Your task to perform on an android device: Empty the shopping cart on newegg. Add logitech g502 to the cart on newegg, then select checkout. Image 0: 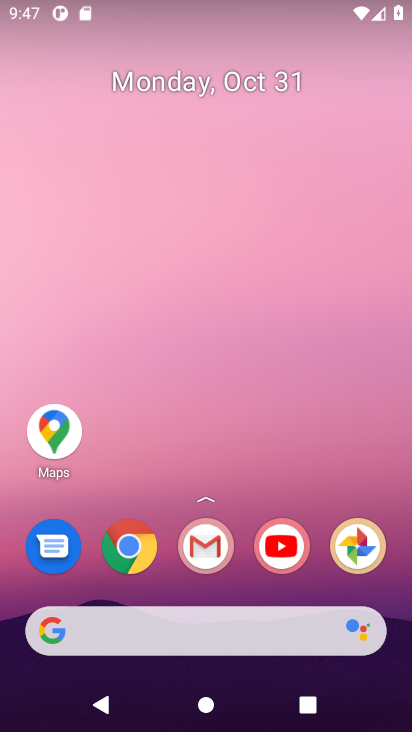
Step 0: click (143, 554)
Your task to perform on an android device: Empty the shopping cart on newegg. Add logitech g502 to the cart on newegg, then select checkout. Image 1: 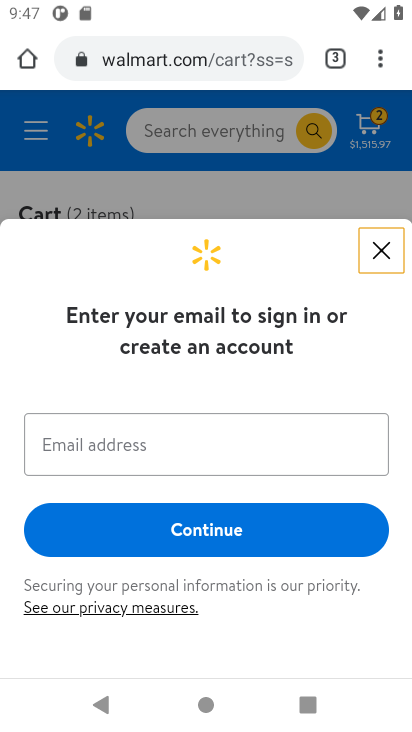
Step 1: click (397, 258)
Your task to perform on an android device: Empty the shopping cart on newegg. Add logitech g502 to the cart on newegg, then select checkout. Image 2: 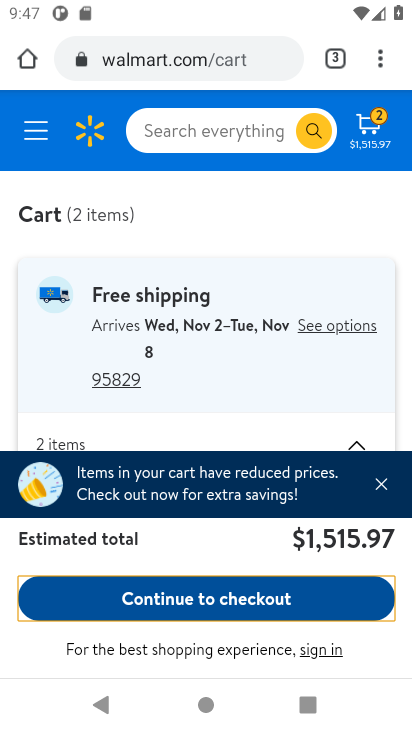
Step 2: click (209, 61)
Your task to perform on an android device: Empty the shopping cart on newegg. Add logitech g502 to the cart on newegg, then select checkout. Image 3: 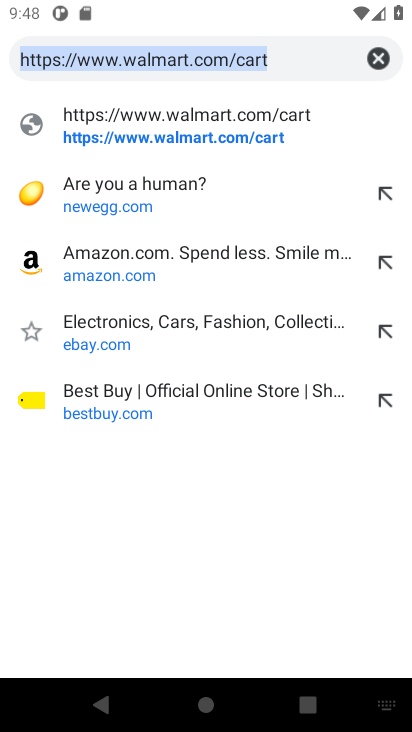
Step 3: click (376, 55)
Your task to perform on an android device: Empty the shopping cart on newegg. Add logitech g502 to the cart on newegg, then select checkout. Image 4: 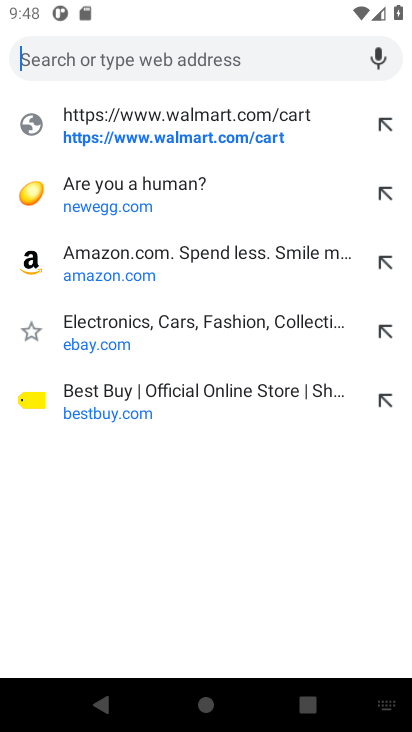
Step 4: type "newegg"
Your task to perform on an android device: Empty the shopping cart on newegg. Add logitech g502 to the cart on newegg, then select checkout. Image 5: 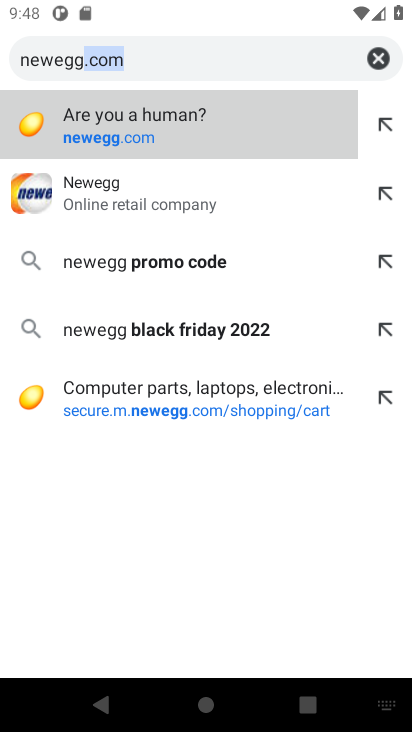
Step 5: press enter
Your task to perform on an android device: Empty the shopping cart on newegg. Add logitech g502 to the cart on newegg, then select checkout. Image 6: 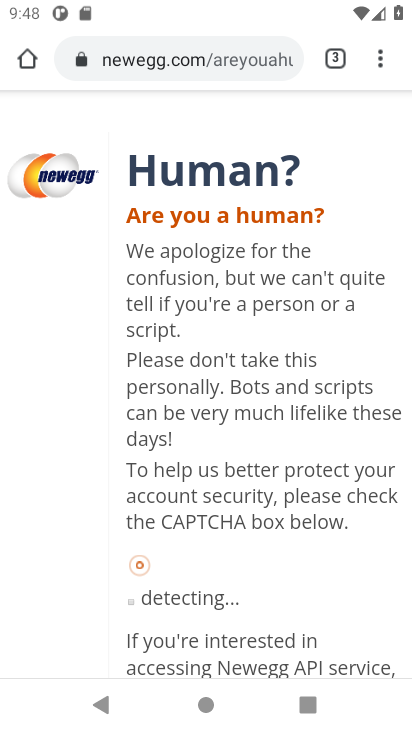
Step 6: click (227, 58)
Your task to perform on an android device: Empty the shopping cart on newegg. Add logitech g502 to the cart on newegg, then select checkout. Image 7: 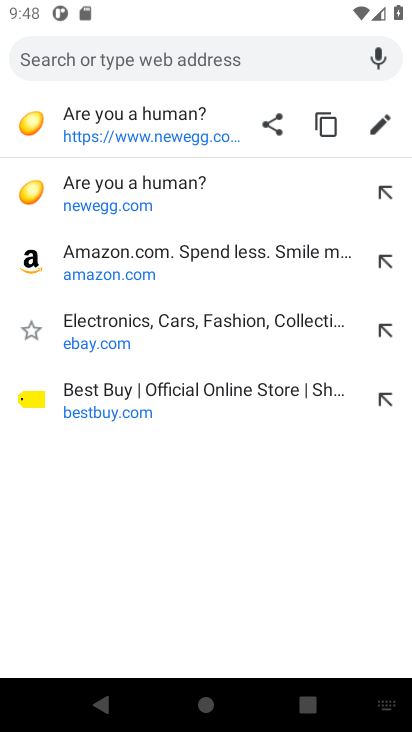
Step 7: type "newegg"
Your task to perform on an android device: Empty the shopping cart on newegg. Add logitech g502 to the cart on newegg, then select checkout. Image 8: 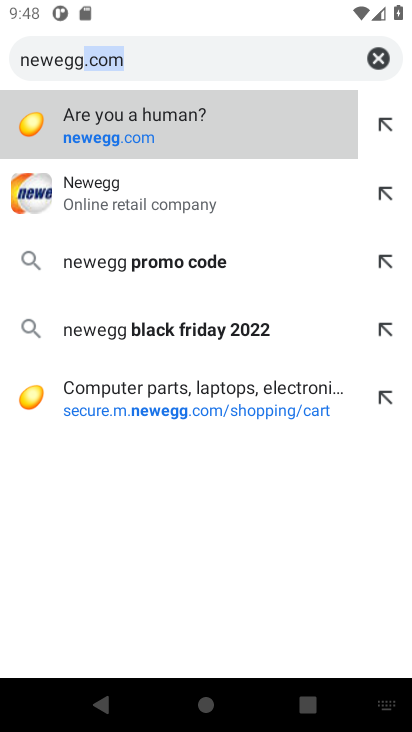
Step 8: press enter
Your task to perform on an android device: Empty the shopping cart on newegg. Add logitech g502 to the cart on newegg, then select checkout. Image 9: 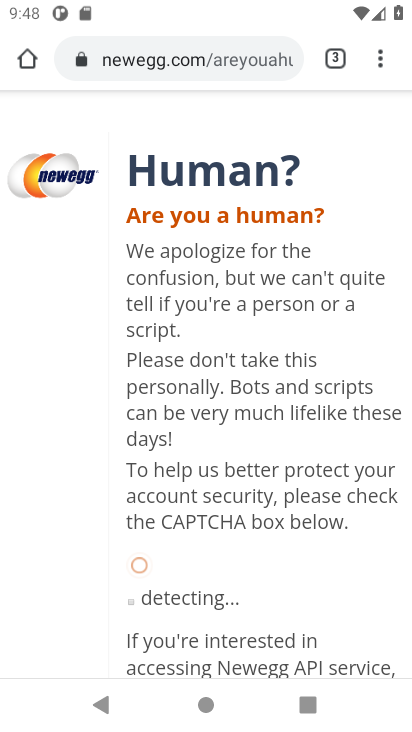
Step 9: click (232, 62)
Your task to perform on an android device: Empty the shopping cart on newegg. Add logitech g502 to the cart on newegg, then select checkout. Image 10: 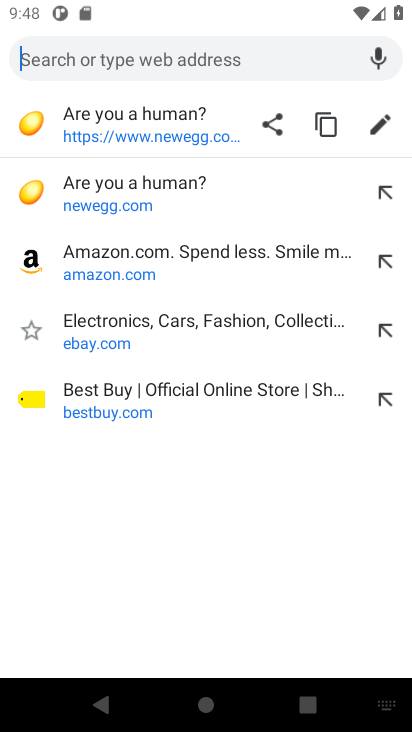
Step 10: type "newegg"
Your task to perform on an android device: Empty the shopping cart on newegg. Add logitech g502 to the cart on newegg, then select checkout. Image 11: 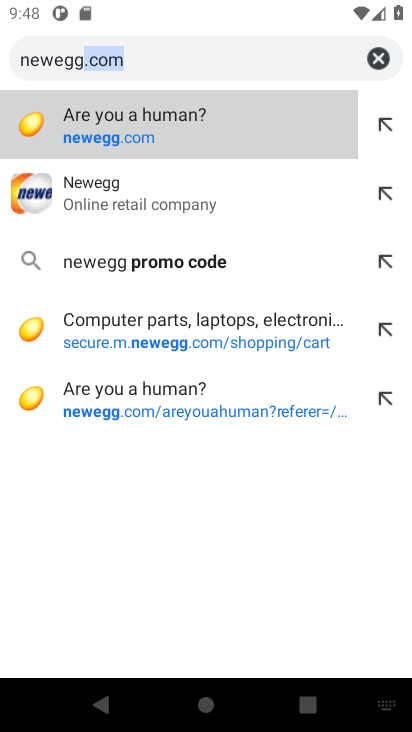
Step 11: press enter
Your task to perform on an android device: Empty the shopping cart on newegg. Add logitech g502 to the cart on newegg, then select checkout. Image 12: 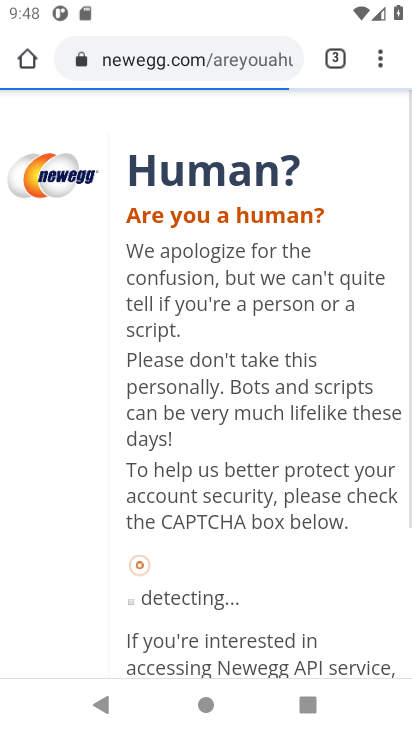
Step 12: click (132, 196)
Your task to perform on an android device: Empty the shopping cart on newegg. Add logitech g502 to the cart on newegg, then select checkout. Image 13: 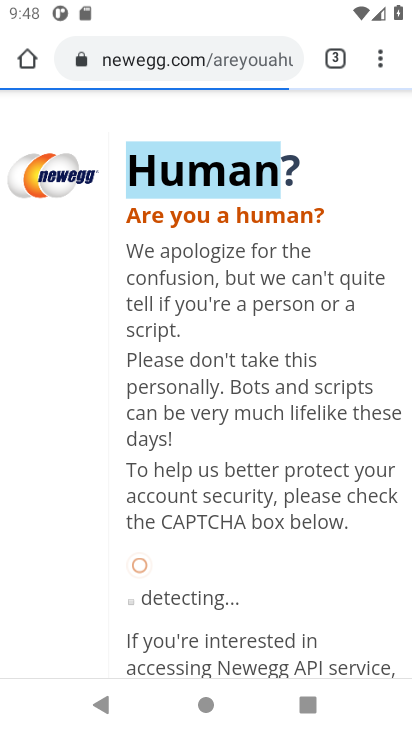
Step 13: click (25, 65)
Your task to perform on an android device: Empty the shopping cart on newegg. Add logitech g502 to the cart on newegg, then select checkout. Image 14: 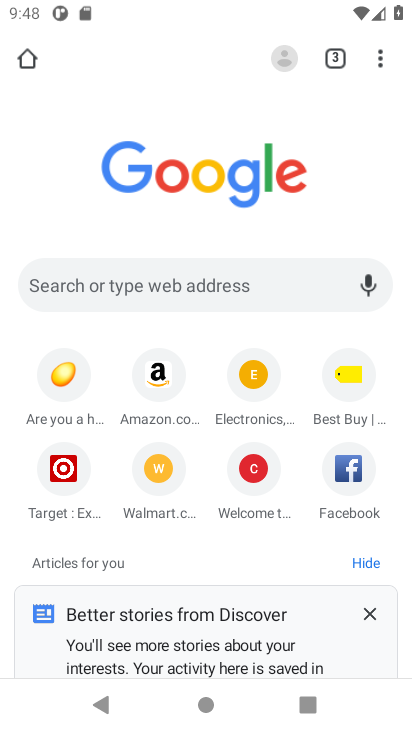
Step 14: click (272, 294)
Your task to perform on an android device: Empty the shopping cart on newegg. Add logitech g502 to the cart on newegg, then select checkout. Image 15: 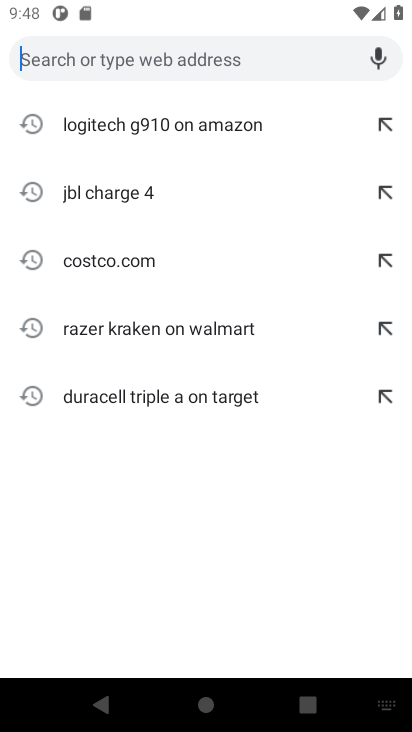
Step 15: type "newegg"
Your task to perform on an android device: Empty the shopping cart on newegg. Add logitech g502 to the cart on newegg, then select checkout. Image 16: 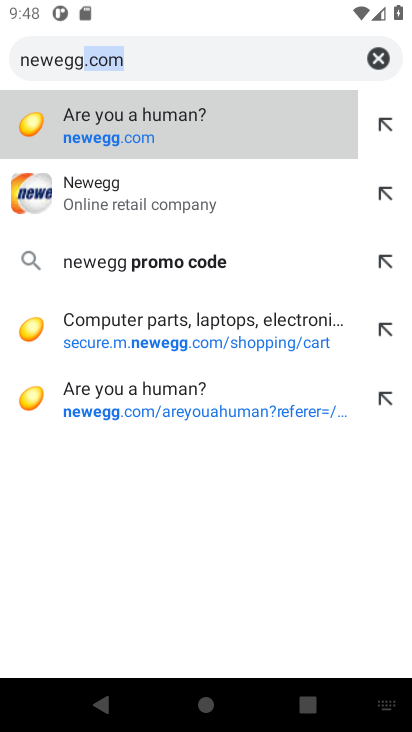
Step 16: press enter
Your task to perform on an android device: Empty the shopping cart on newegg. Add logitech g502 to the cart on newegg, then select checkout. Image 17: 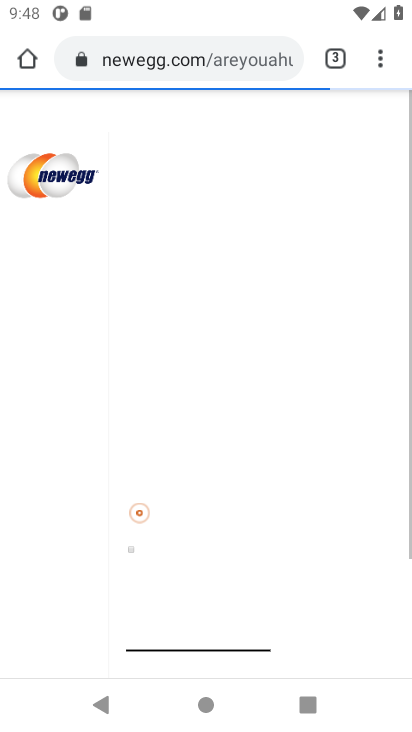
Step 17: click (194, 173)
Your task to perform on an android device: Empty the shopping cart on newegg. Add logitech g502 to the cart on newegg, then select checkout. Image 18: 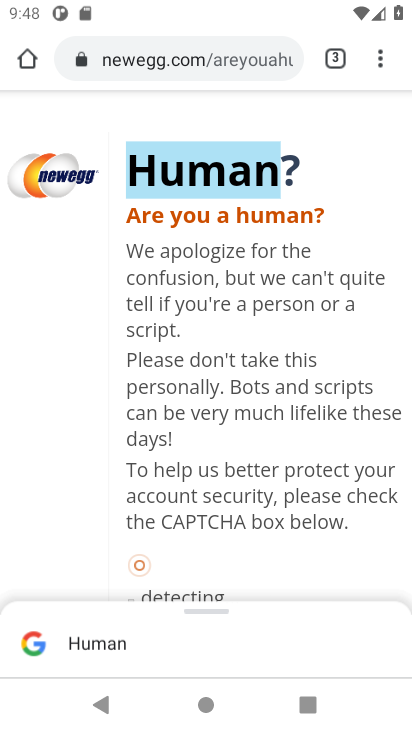
Step 18: drag from (294, 409) to (291, 335)
Your task to perform on an android device: Empty the shopping cart on newegg. Add logitech g502 to the cart on newegg, then select checkout. Image 19: 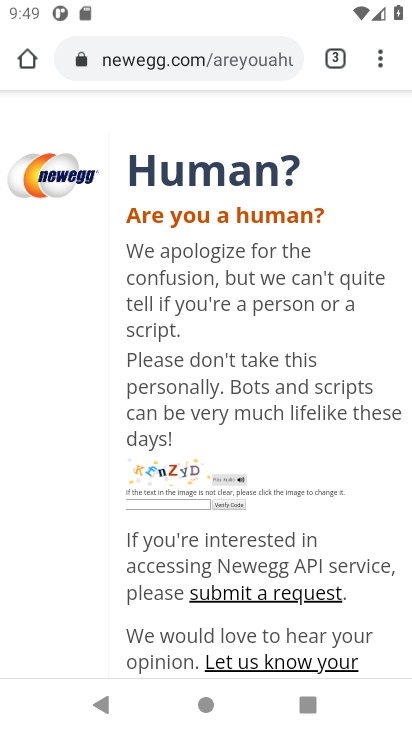
Step 19: click (147, 506)
Your task to perform on an android device: Empty the shopping cart on newegg. Add logitech g502 to the cart on newegg, then select checkout. Image 20: 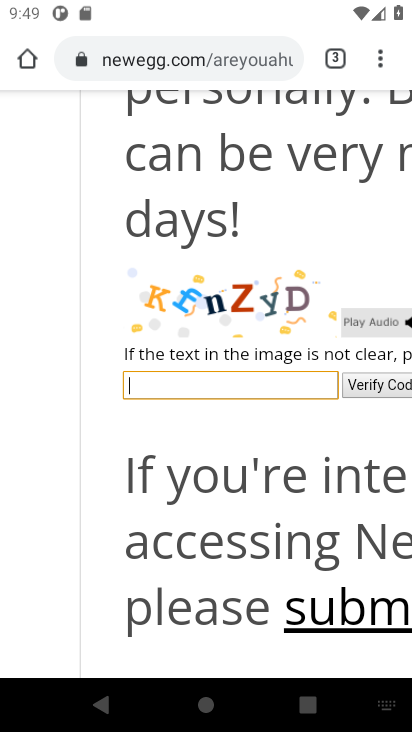
Step 20: type "KfnZyD"
Your task to perform on an android device: Empty the shopping cart on newegg. Add logitech g502 to the cart on newegg, then select checkout. Image 21: 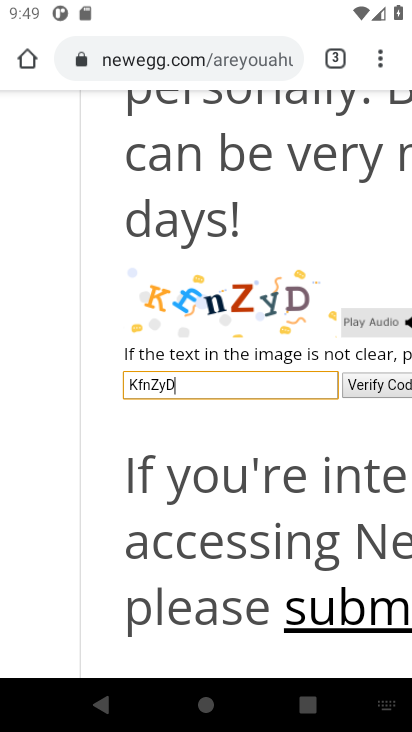
Step 21: press enter
Your task to perform on an android device: Empty the shopping cart on newegg. Add logitech g502 to the cart on newegg, then select checkout. Image 22: 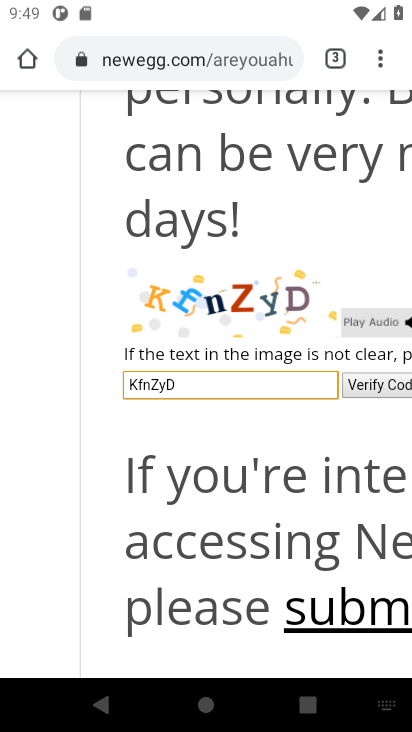
Step 22: click (365, 391)
Your task to perform on an android device: Empty the shopping cart on newegg. Add logitech g502 to the cart on newegg, then select checkout. Image 23: 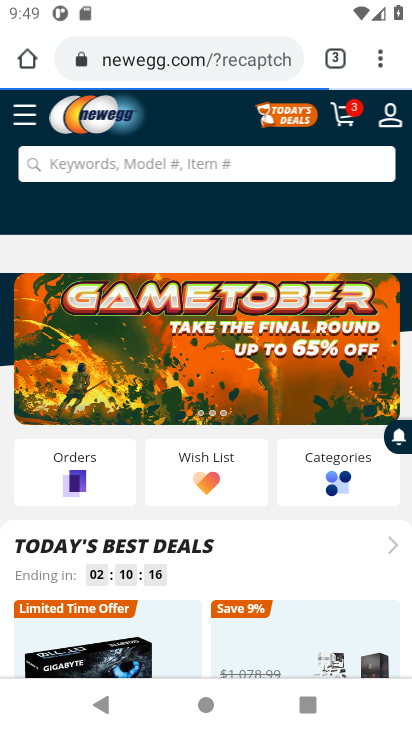
Step 23: drag from (208, 509) to (225, 367)
Your task to perform on an android device: Empty the shopping cart on newegg. Add logitech g502 to the cart on newegg, then select checkout. Image 24: 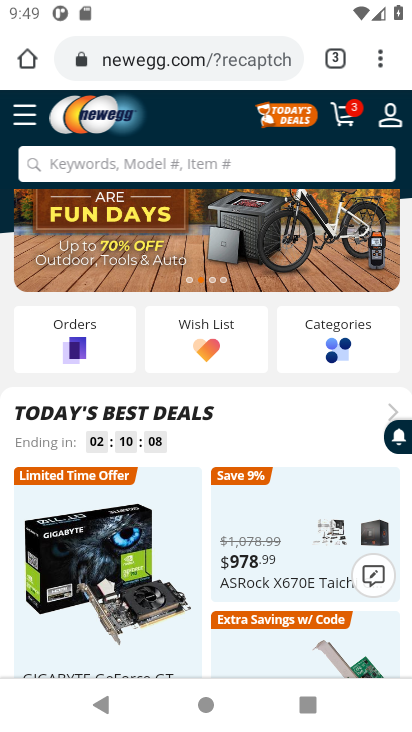
Step 24: click (157, 153)
Your task to perform on an android device: Empty the shopping cart on newegg. Add logitech g502 to the cart on newegg, then select checkout. Image 25: 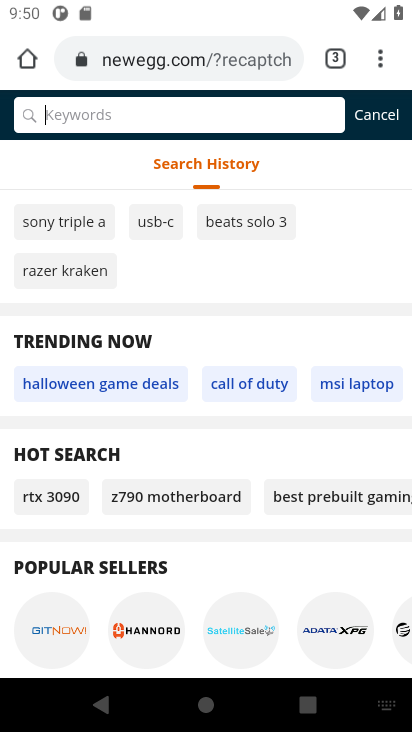
Step 25: type "g502"
Your task to perform on an android device: Empty the shopping cart on newegg. Add logitech g502 to the cart on newegg, then select checkout. Image 26: 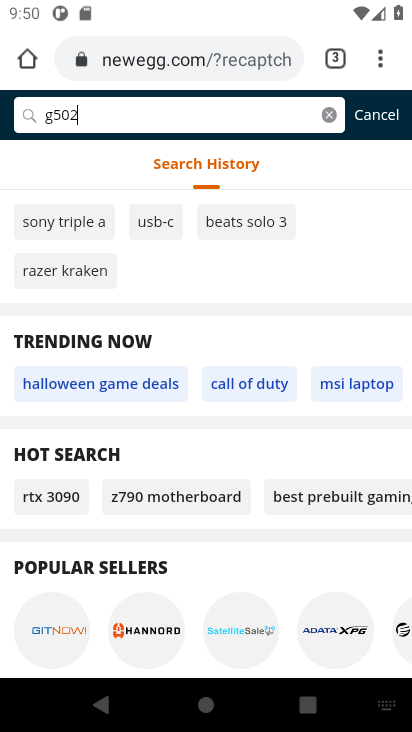
Step 26: press enter
Your task to perform on an android device: Empty the shopping cart on newegg. Add logitech g502 to the cart on newegg, then select checkout. Image 27: 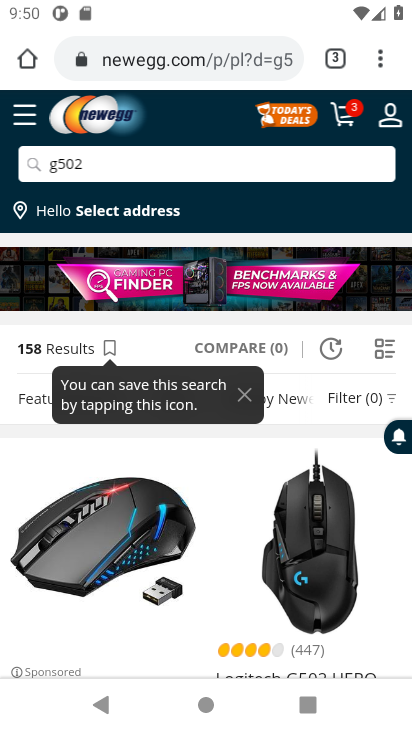
Step 27: click (350, 119)
Your task to perform on an android device: Empty the shopping cart on newegg. Add logitech g502 to the cart on newegg, then select checkout. Image 28: 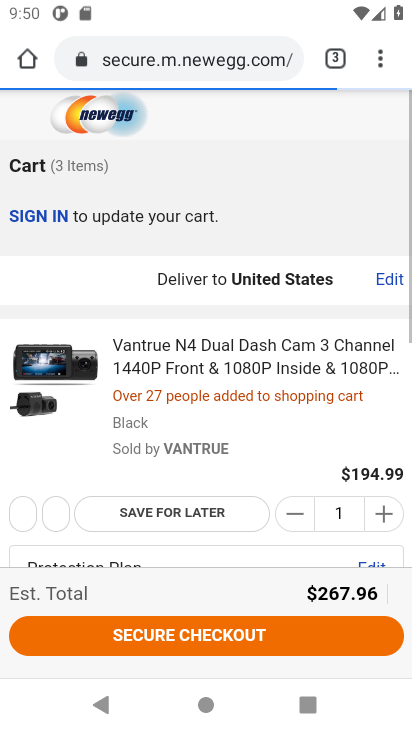
Step 28: click (297, 515)
Your task to perform on an android device: Empty the shopping cart on newegg. Add logitech g502 to the cart on newegg, then select checkout. Image 29: 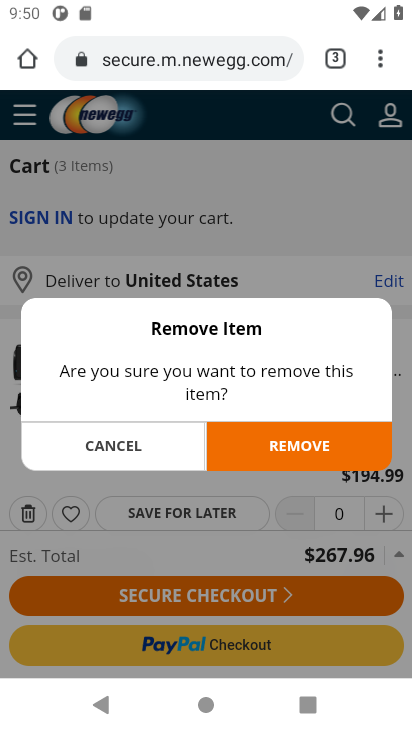
Step 29: click (304, 434)
Your task to perform on an android device: Empty the shopping cart on newegg. Add logitech g502 to the cart on newegg, then select checkout. Image 30: 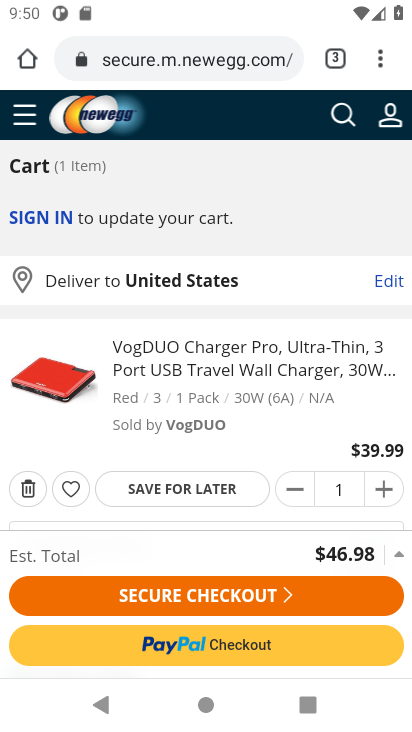
Step 30: click (291, 490)
Your task to perform on an android device: Empty the shopping cart on newegg. Add logitech g502 to the cart on newegg, then select checkout. Image 31: 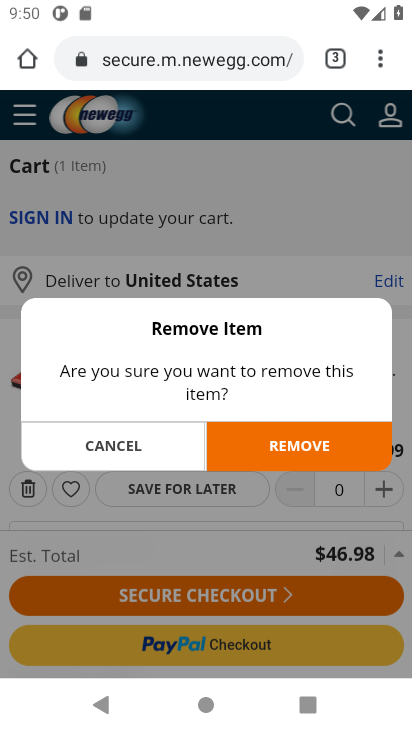
Step 31: click (304, 441)
Your task to perform on an android device: Empty the shopping cart on newegg. Add logitech g502 to the cart on newegg, then select checkout. Image 32: 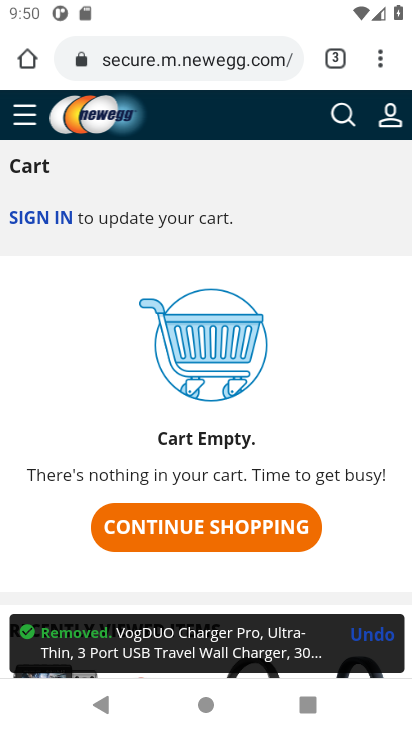
Step 32: click (336, 119)
Your task to perform on an android device: Empty the shopping cart on newegg. Add logitech g502 to the cart on newegg, then select checkout. Image 33: 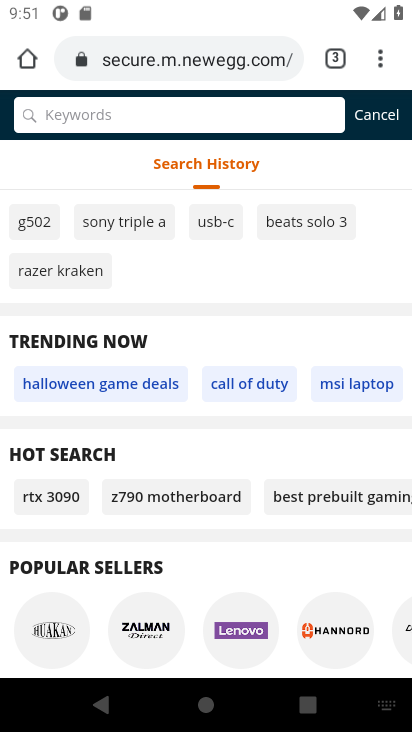
Step 33: type "g502"
Your task to perform on an android device: Empty the shopping cart on newegg. Add logitech g502 to the cart on newegg, then select checkout. Image 34: 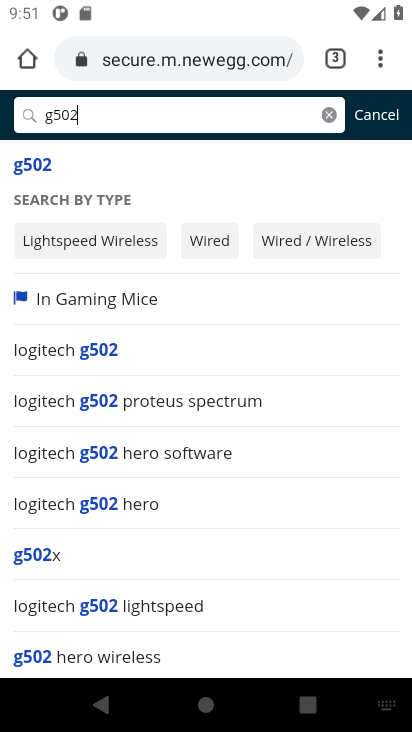
Step 34: click (121, 356)
Your task to perform on an android device: Empty the shopping cart on newegg. Add logitech g502 to the cart on newegg, then select checkout. Image 35: 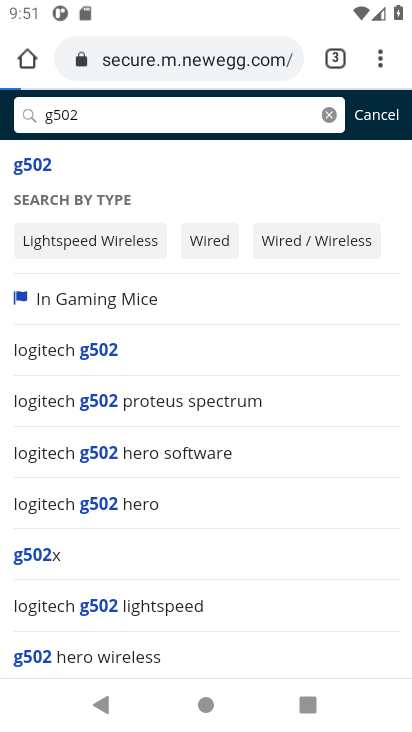
Step 35: click (93, 352)
Your task to perform on an android device: Empty the shopping cart on newegg. Add logitech g502 to the cart on newegg, then select checkout. Image 36: 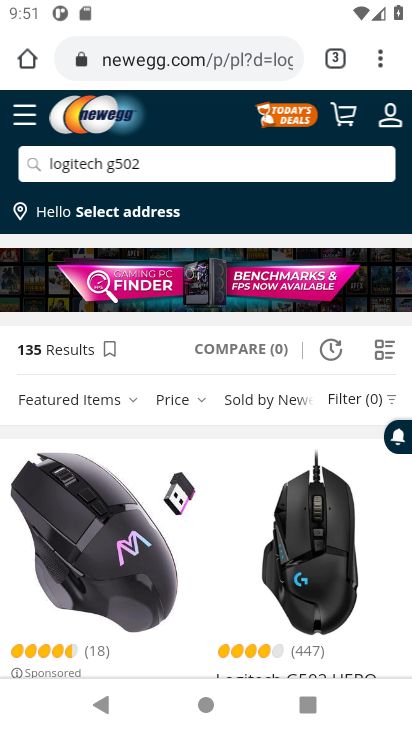
Step 36: drag from (226, 613) to (243, 412)
Your task to perform on an android device: Empty the shopping cart on newegg. Add logitech g502 to the cart on newegg, then select checkout. Image 37: 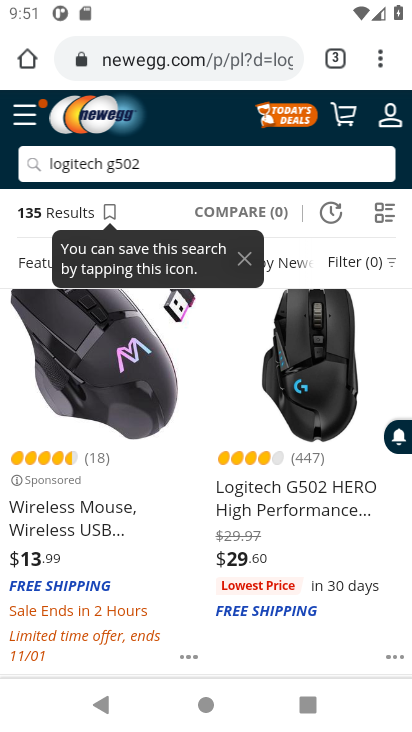
Step 37: click (291, 461)
Your task to perform on an android device: Empty the shopping cart on newegg. Add logitech g502 to the cart on newegg, then select checkout. Image 38: 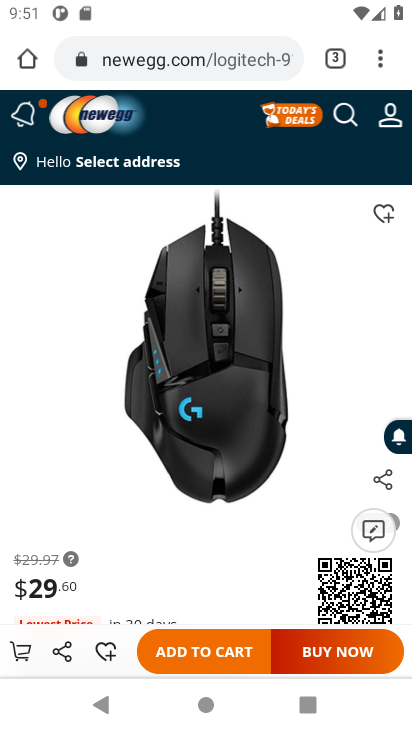
Step 38: click (188, 656)
Your task to perform on an android device: Empty the shopping cart on newegg. Add logitech g502 to the cart on newegg, then select checkout. Image 39: 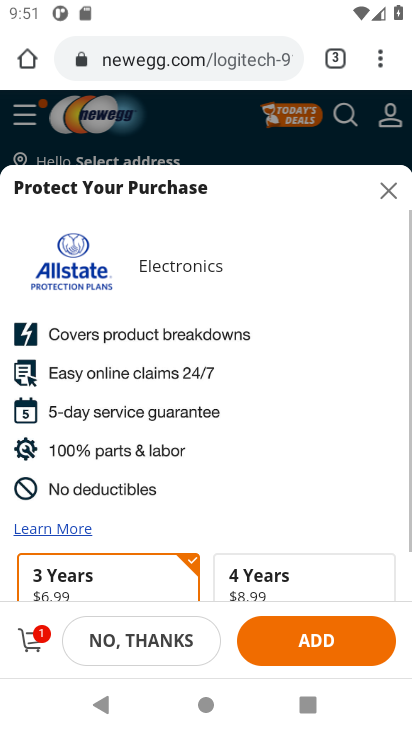
Step 39: click (321, 641)
Your task to perform on an android device: Empty the shopping cart on newegg. Add logitech g502 to the cart on newegg, then select checkout. Image 40: 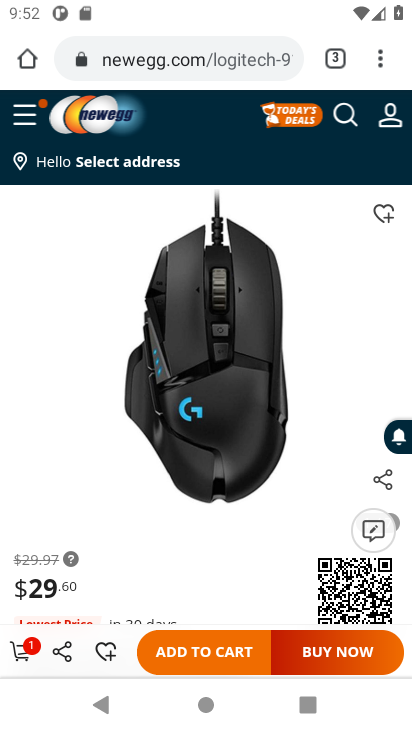
Step 40: click (23, 116)
Your task to perform on an android device: Empty the shopping cart on newegg. Add logitech g502 to the cart on newegg, then select checkout. Image 41: 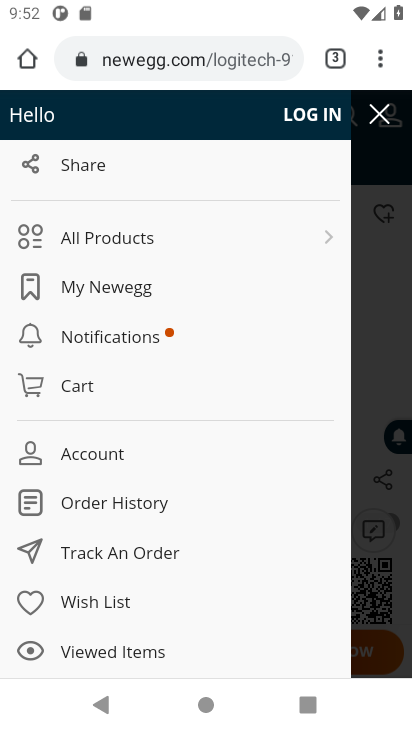
Step 41: click (99, 391)
Your task to perform on an android device: Empty the shopping cart on newegg. Add logitech g502 to the cart on newegg, then select checkout. Image 42: 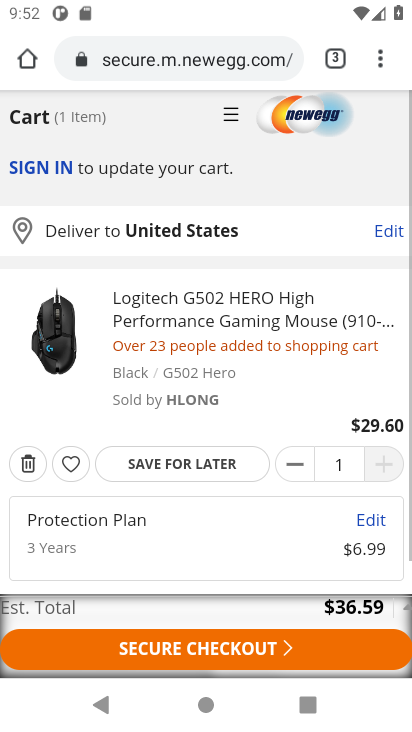
Step 42: click (242, 650)
Your task to perform on an android device: Empty the shopping cart on newegg. Add logitech g502 to the cart on newegg, then select checkout. Image 43: 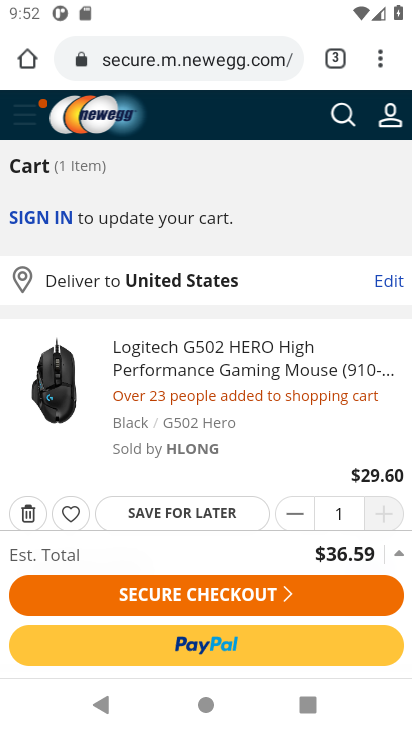
Step 43: click (230, 606)
Your task to perform on an android device: Empty the shopping cart on newegg. Add logitech g502 to the cart on newegg, then select checkout. Image 44: 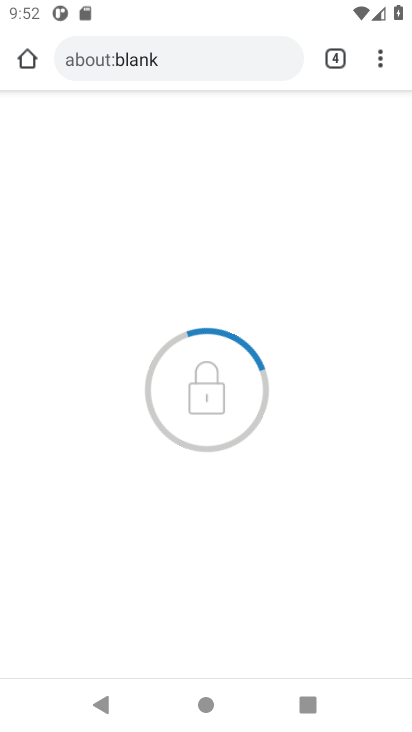
Step 44: task complete